Your task to perform on an android device: open app "WhatsApp Messenger" (install if not already installed), go to login, and select forgot password Image 0: 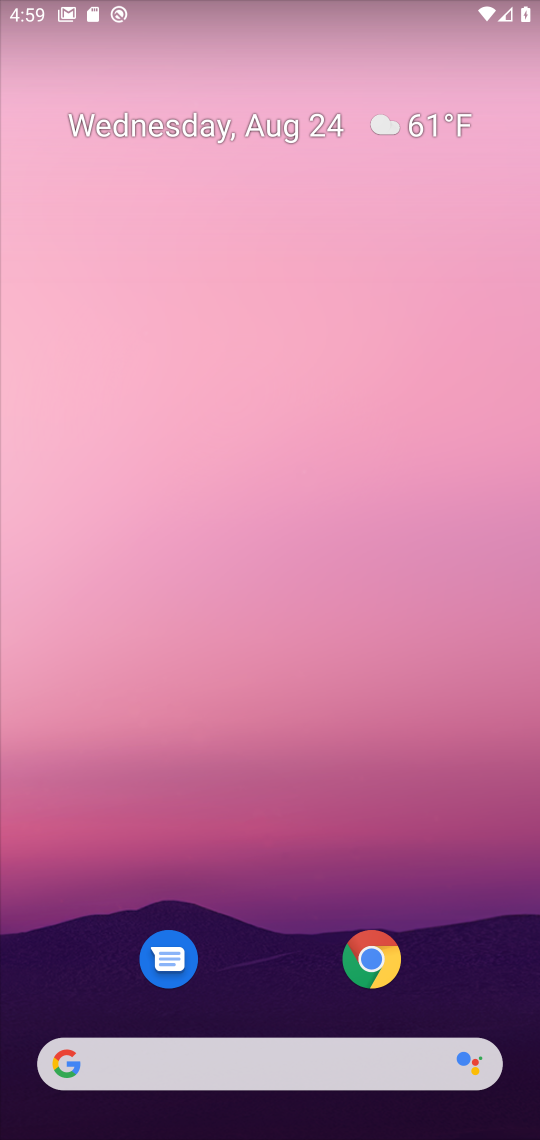
Step 0: drag from (244, 700) to (244, 467)
Your task to perform on an android device: open app "WhatsApp Messenger" (install if not already installed), go to login, and select forgot password Image 1: 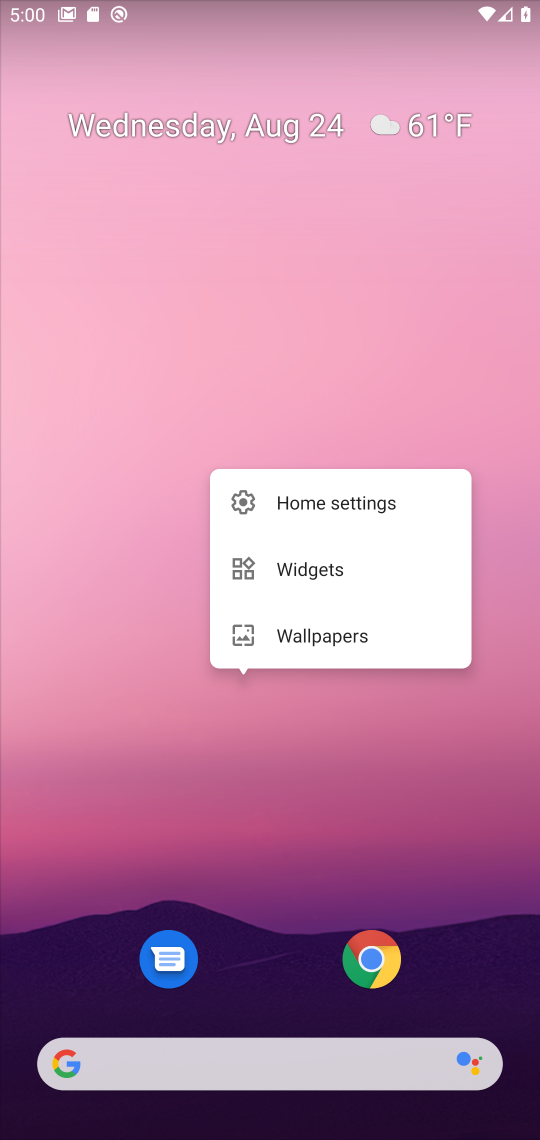
Step 1: drag from (265, 1010) to (252, 316)
Your task to perform on an android device: open app "WhatsApp Messenger" (install if not already installed), go to login, and select forgot password Image 2: 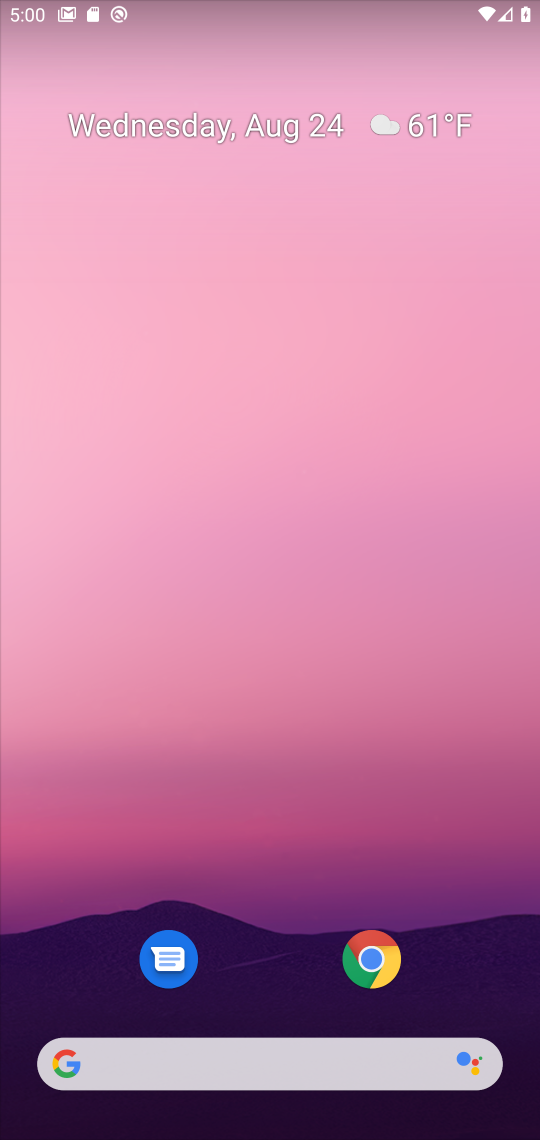
Step 2: drag from (242, 750) to (294, 249)
Your task to perform on an android device: open app "WhatsApp Messenger" (install if not already installed), go to login, and select forgot password Image 3: 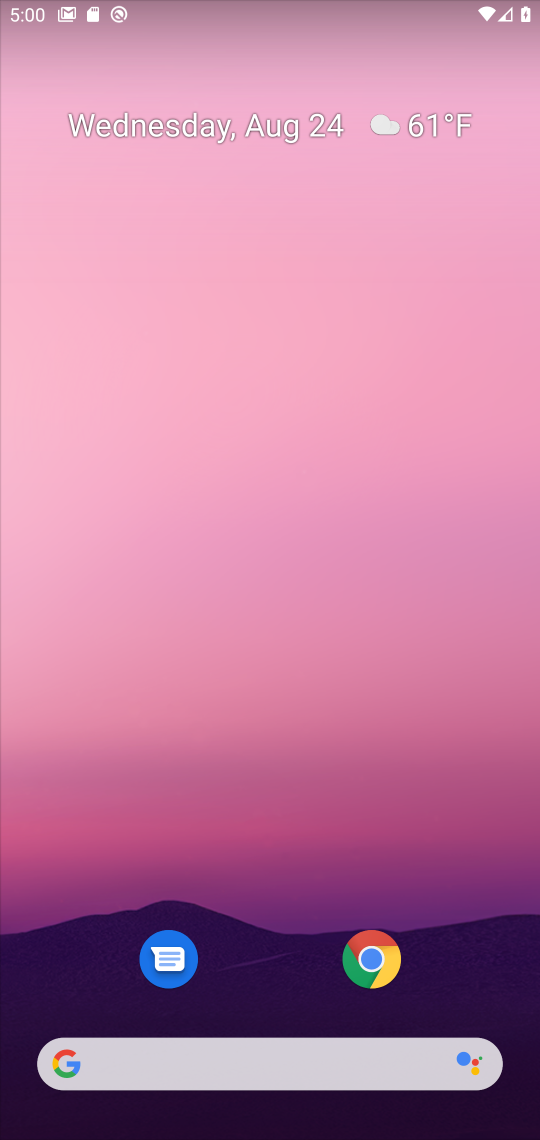
Step 3: drag from (245, 1028) to (244, 118)
Your task to perform on an android device: open app "WhatsApp Messenger" (install if not already installed), go to login, and select forgot password Image 4: 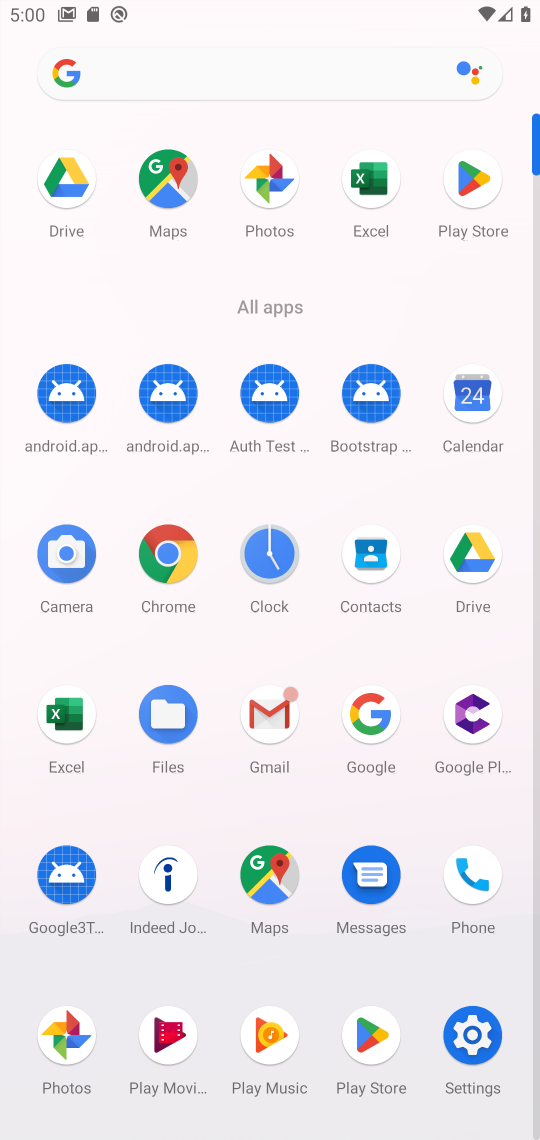
Step 4: click (465, 189)
Your task to perform on an android device: open app "WhatsApp Messenger" (install if not already installed), go to login, and select forgot password Image 5: 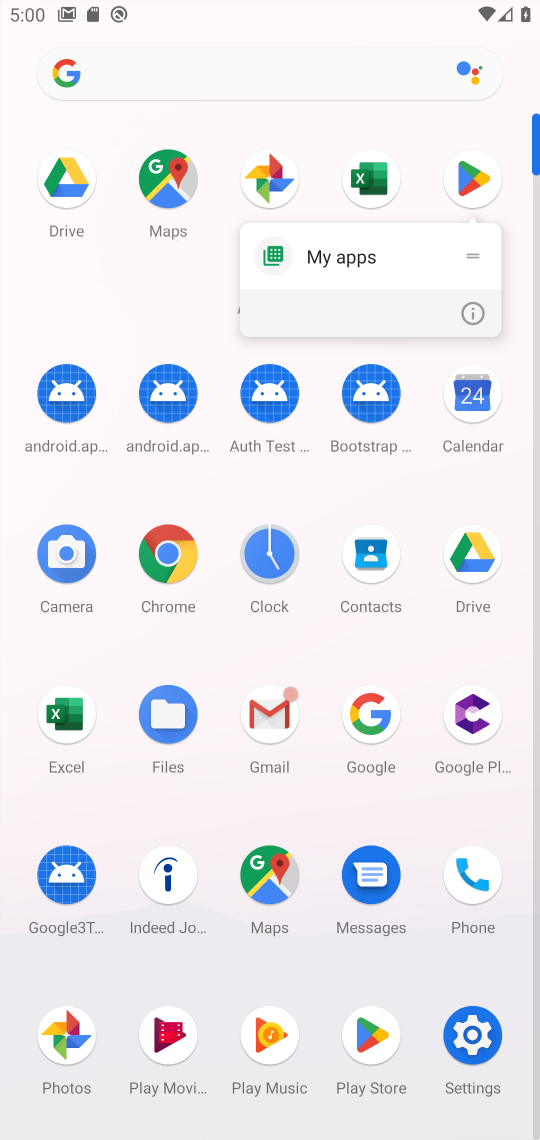
Step 5: click (471, 176)
Your task to perform on an android device: open app "WhatsApp Messenger" (install if not already installed), go to login, and select forgot password Image 6: 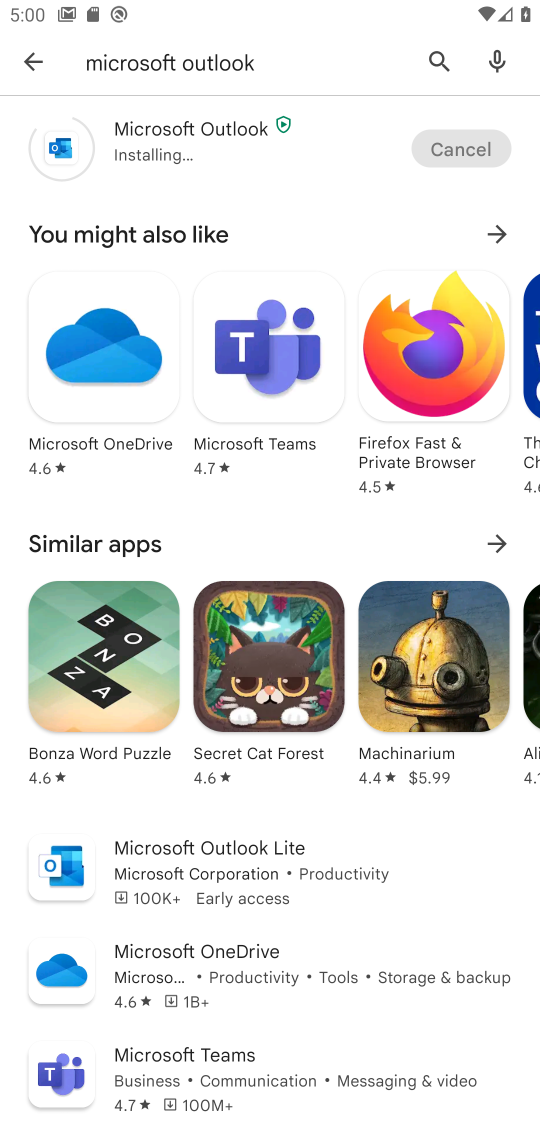
Step 6: click (433, 64)
Your task to perform on an android device: open app "WhatsApp Messenger" (install if not already installed), go to login, and select forgot password Image 7: 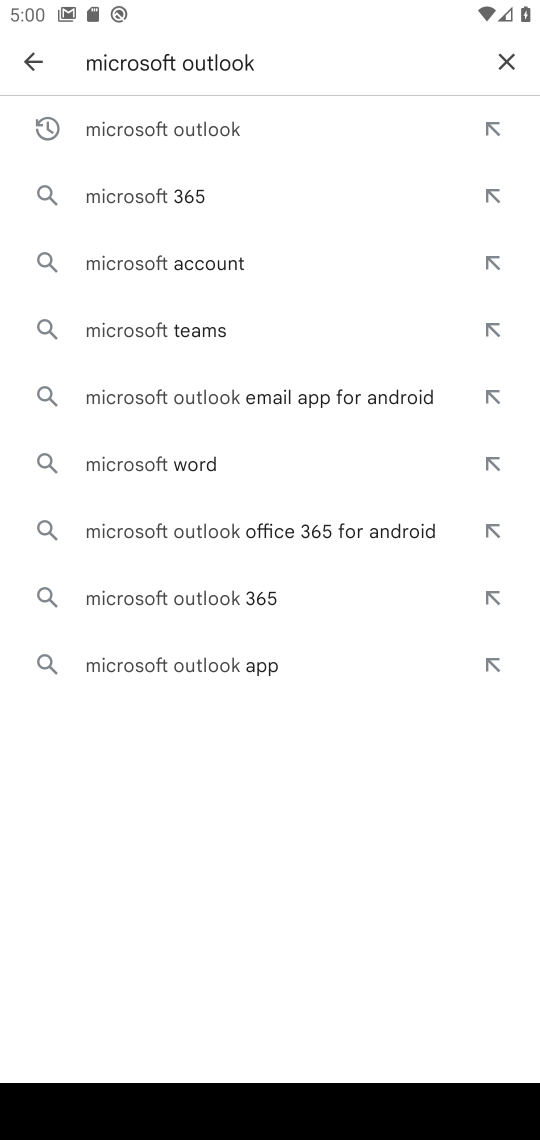
Step 7: click (513, 64)
Your task to perform on an android device: open app "WhatsApp Messenger" (install if not already installed), go to login, and select forgot password Image 8: 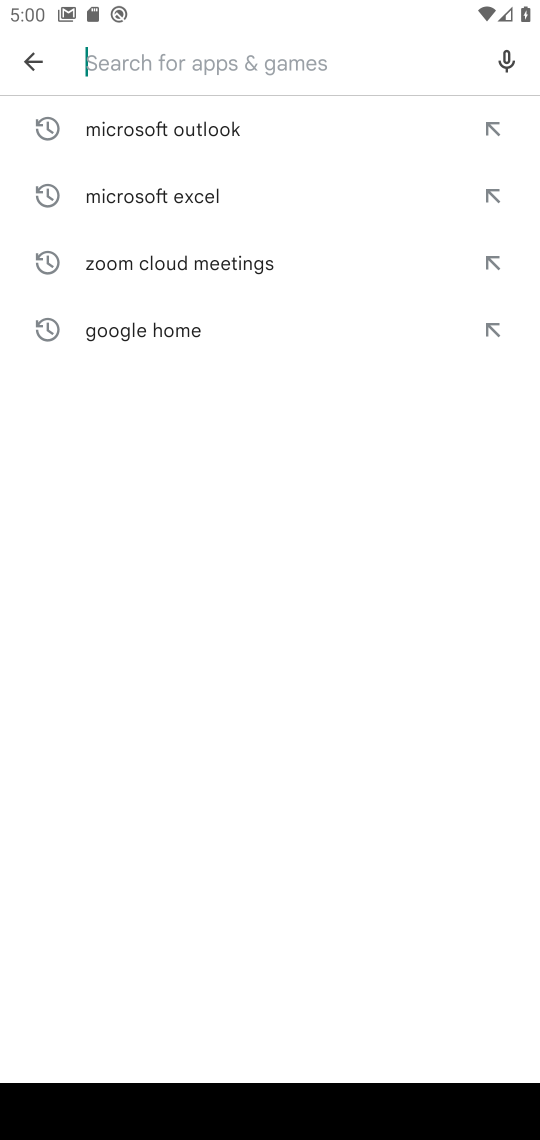
Step 8: type "WhatsApp Messenger"
Your task to perform on an android device: open app "WhatsApp Messenger" (install if not already installed), go to login, and select forgot password Image 9: 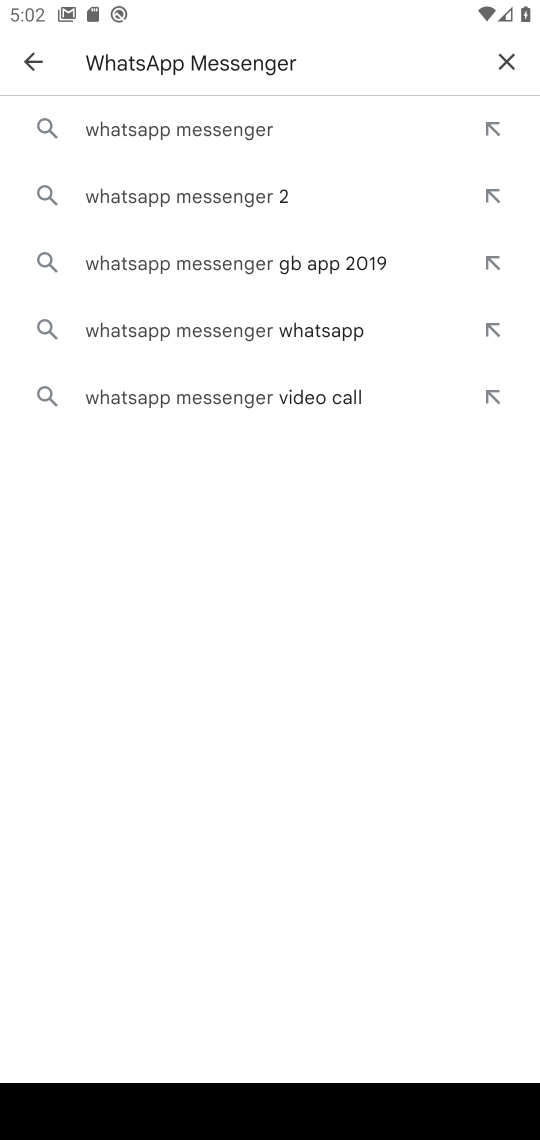
Step 9: click (199, 125)
Your task to perform on an android device: open app "WhatsApp Messenger" (install if not already installed), go to login, and select forgot password Image 10: 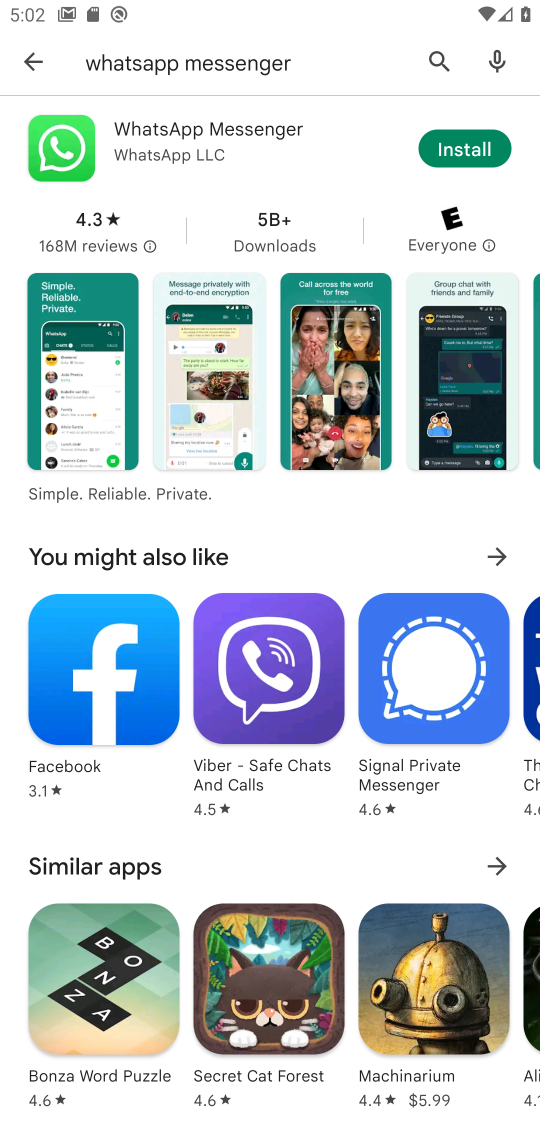
Step 10: click (439, 141)
Your task to perform on an android device: open app "WhatsApp Messenger" (install if not already installed), go to login, and select forgot password Image 11: 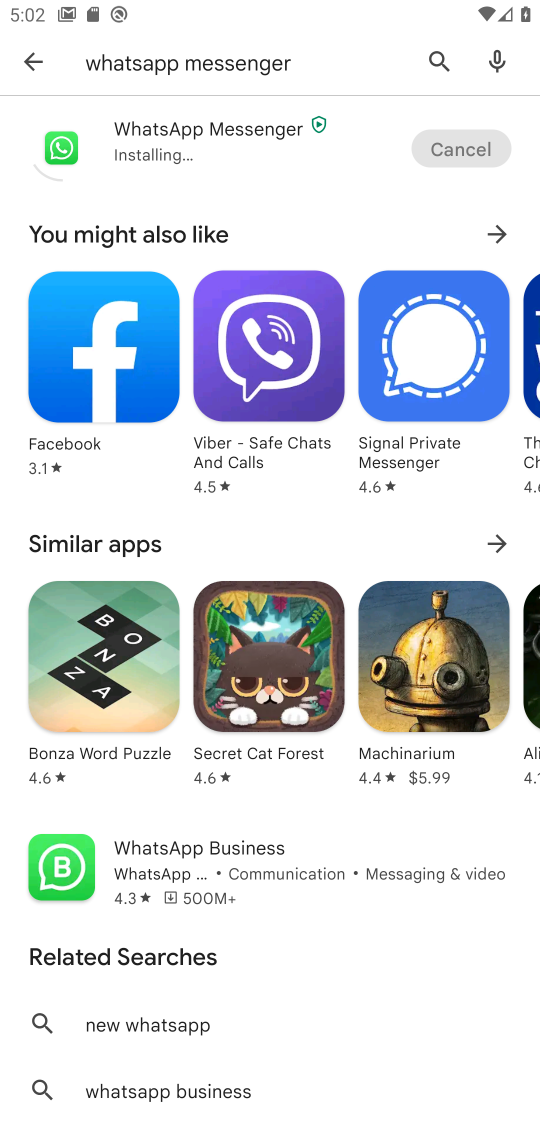
Step 11: task complete